Your task to perform on an android device: Go to notification settings Image 0: 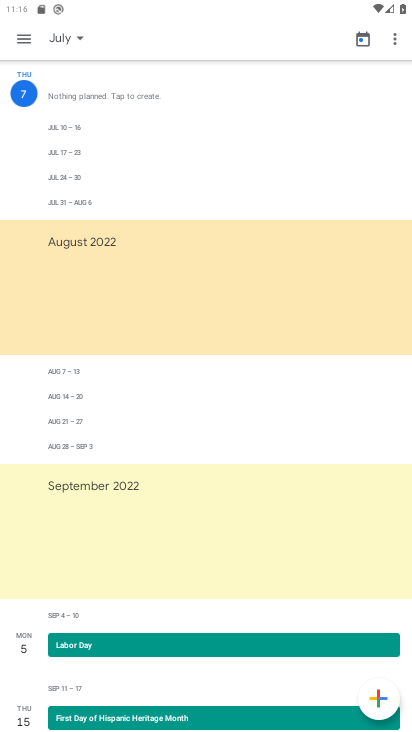
Step 0: press home button
Your task to perform on an android device: Go to notification settings Image 1: 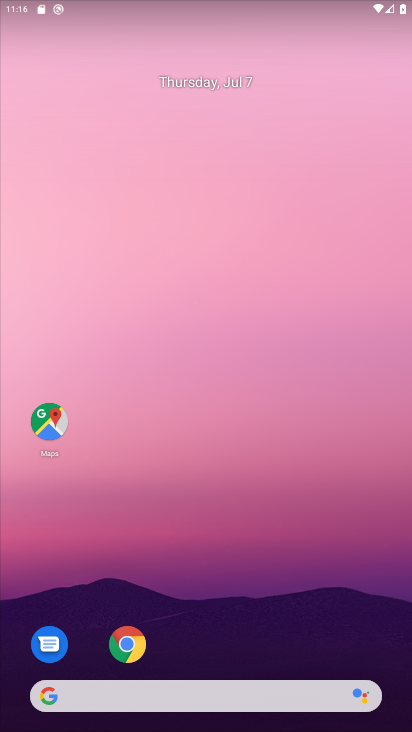
Step 1: drag from (17, 709) to (141, 154)
Your task to perform on an android device: Go to notification settings Image 2: 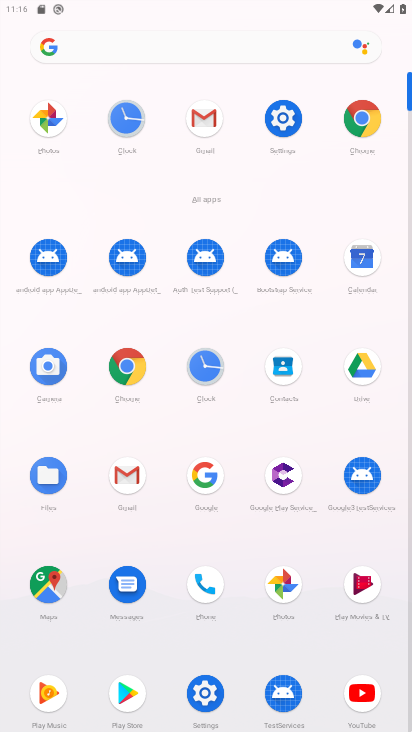
Step 2: click (199, 694)
Your task to perform on an android device: Go to notification settings Image 3: 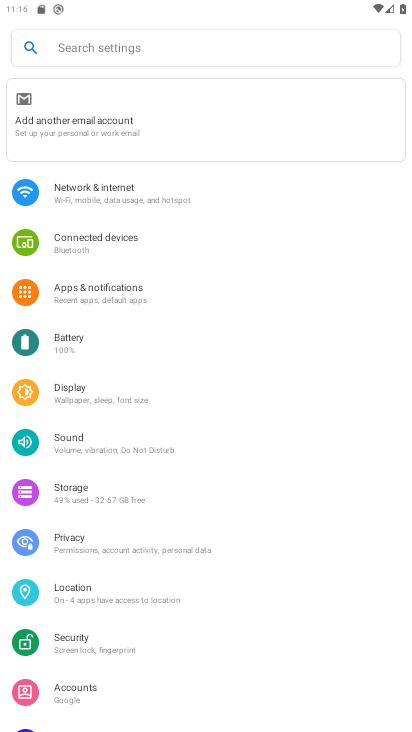
Step 3: click (98, 300)
Your task to perform on an android device: Go to notification settings Image 4: 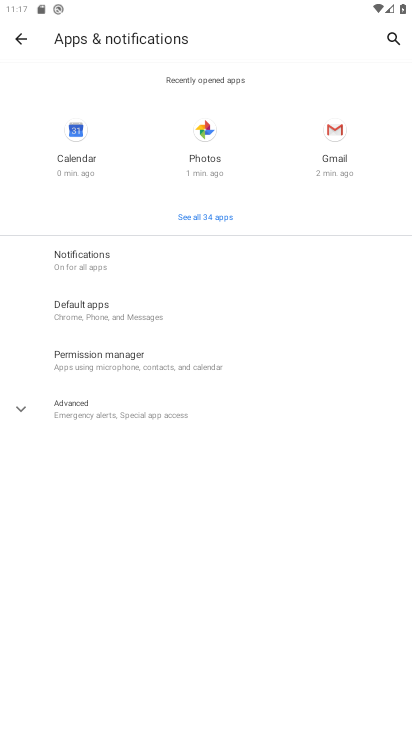
Step 4: task complete